Your task to perform on an android device: Play the last video I watched on Youtube Image 0: 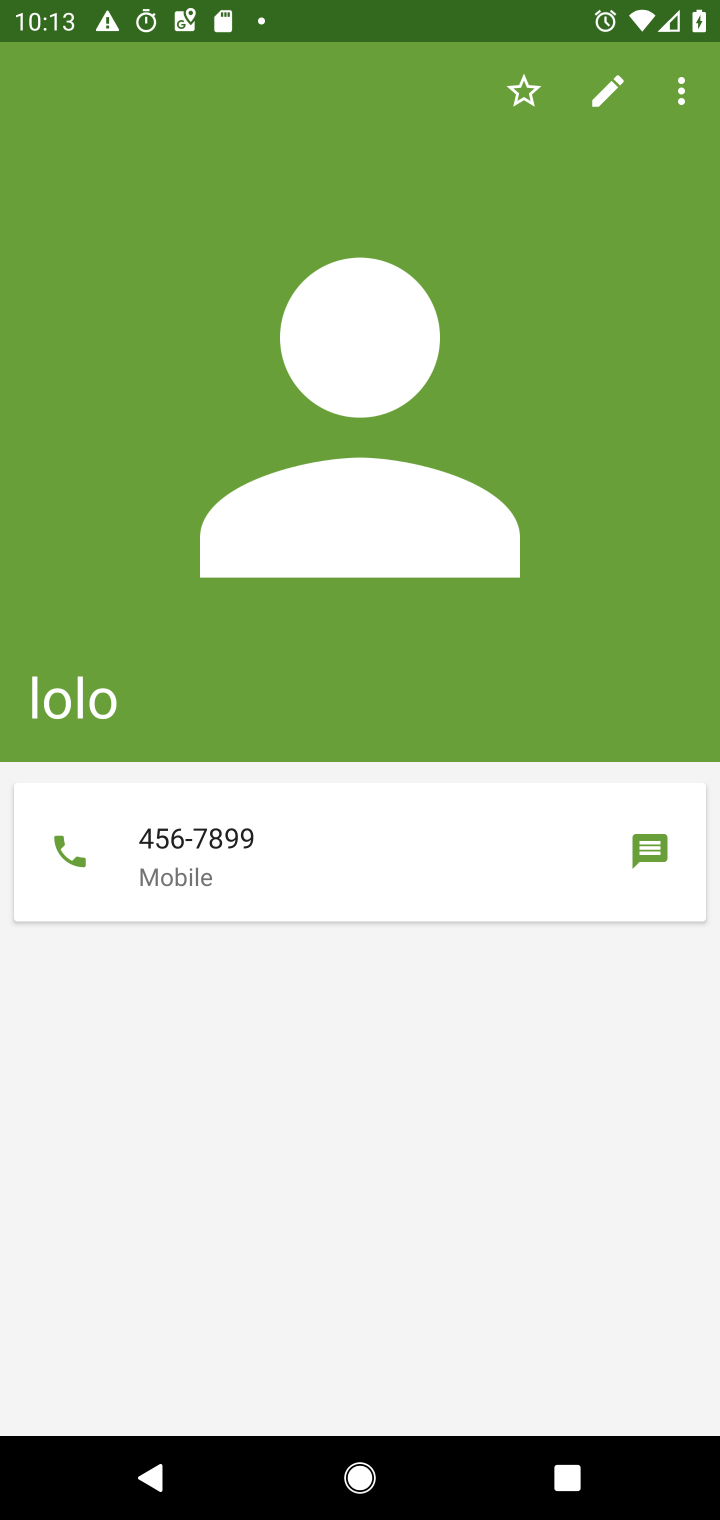
Step 0: press home button
Your task to perform on an android device: Play the last video I watched on Youtube Image 1: 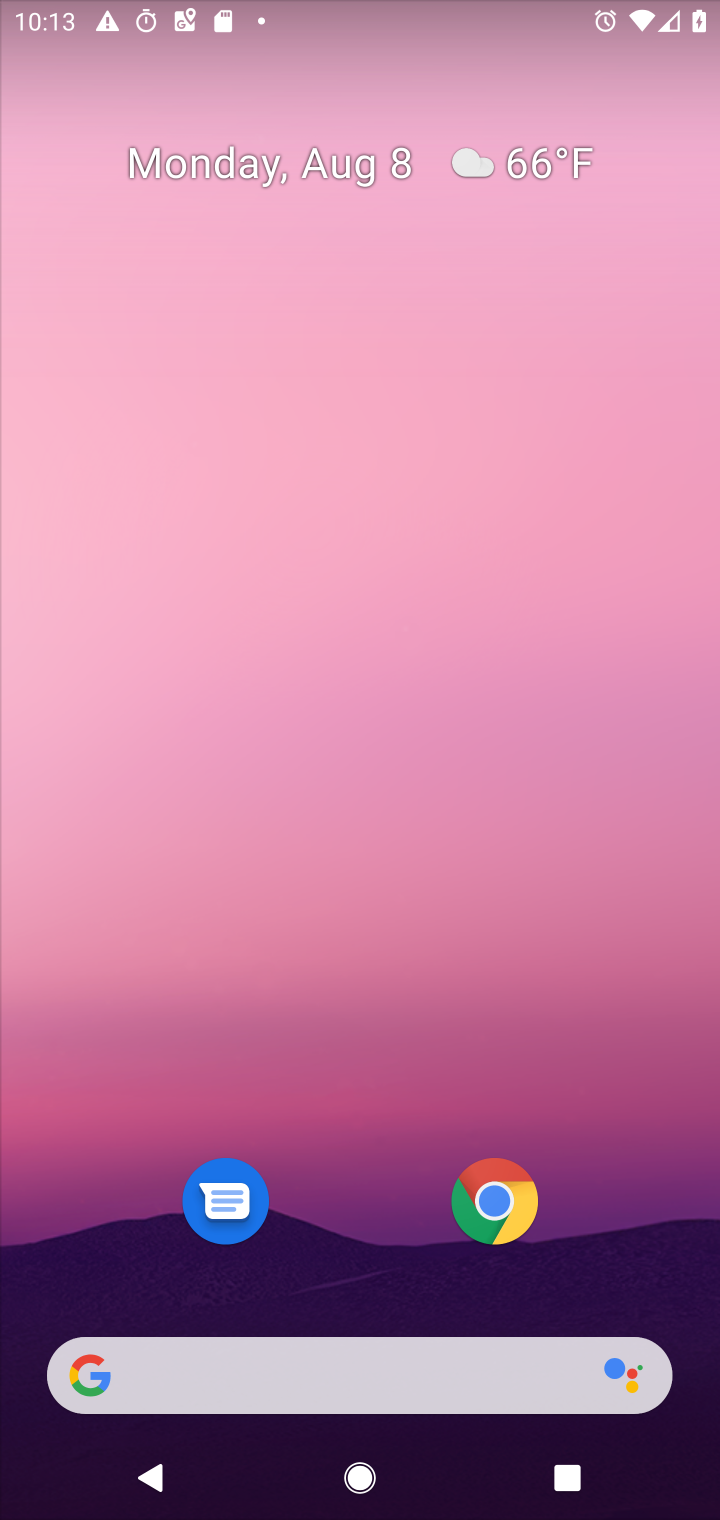
Step 1: drag from (392, 1261) to (379, 277)
Your task to perform on an android device: Play the last video I watched on Youtube Image 2: 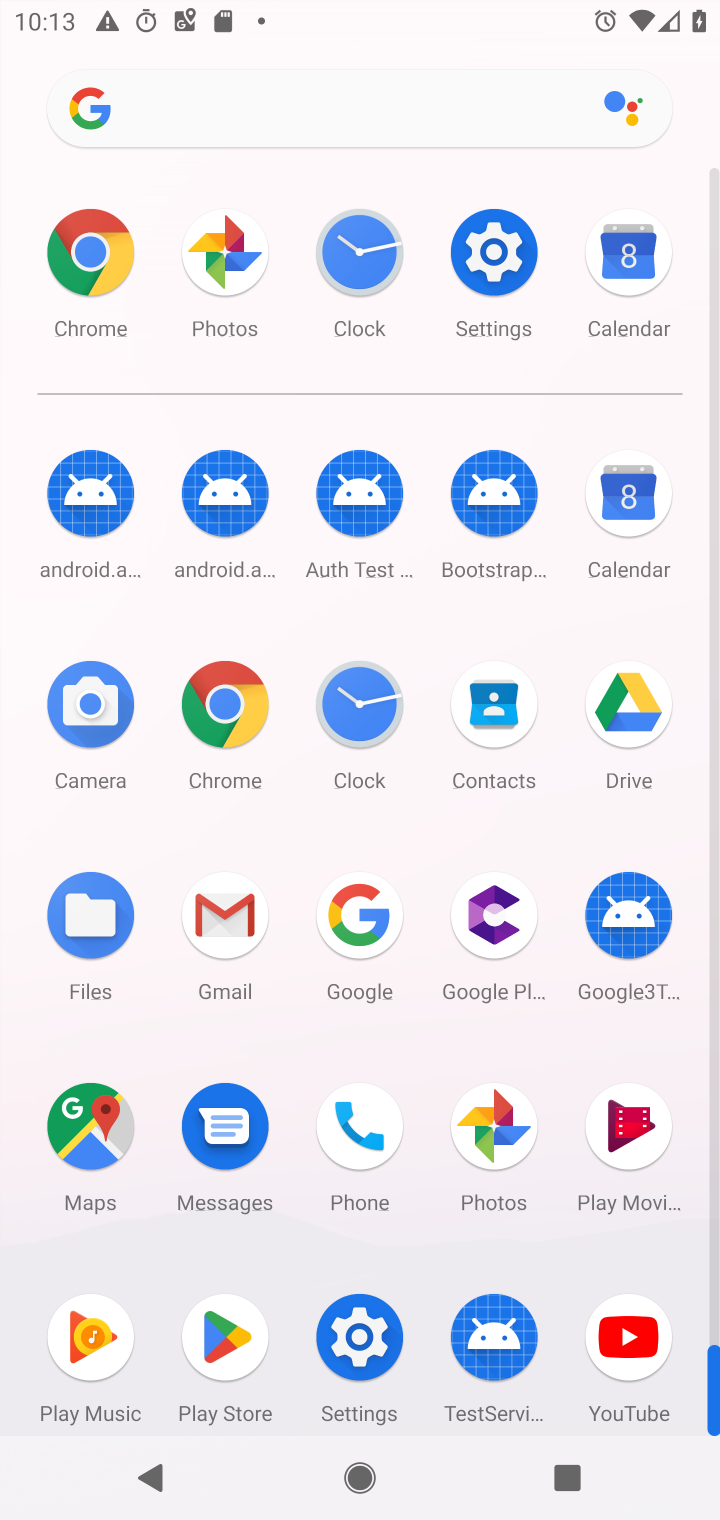
Step 2: click (623, 1343)
Your task to perform on an android device: Play the last video I watched on Youtube Image 3: 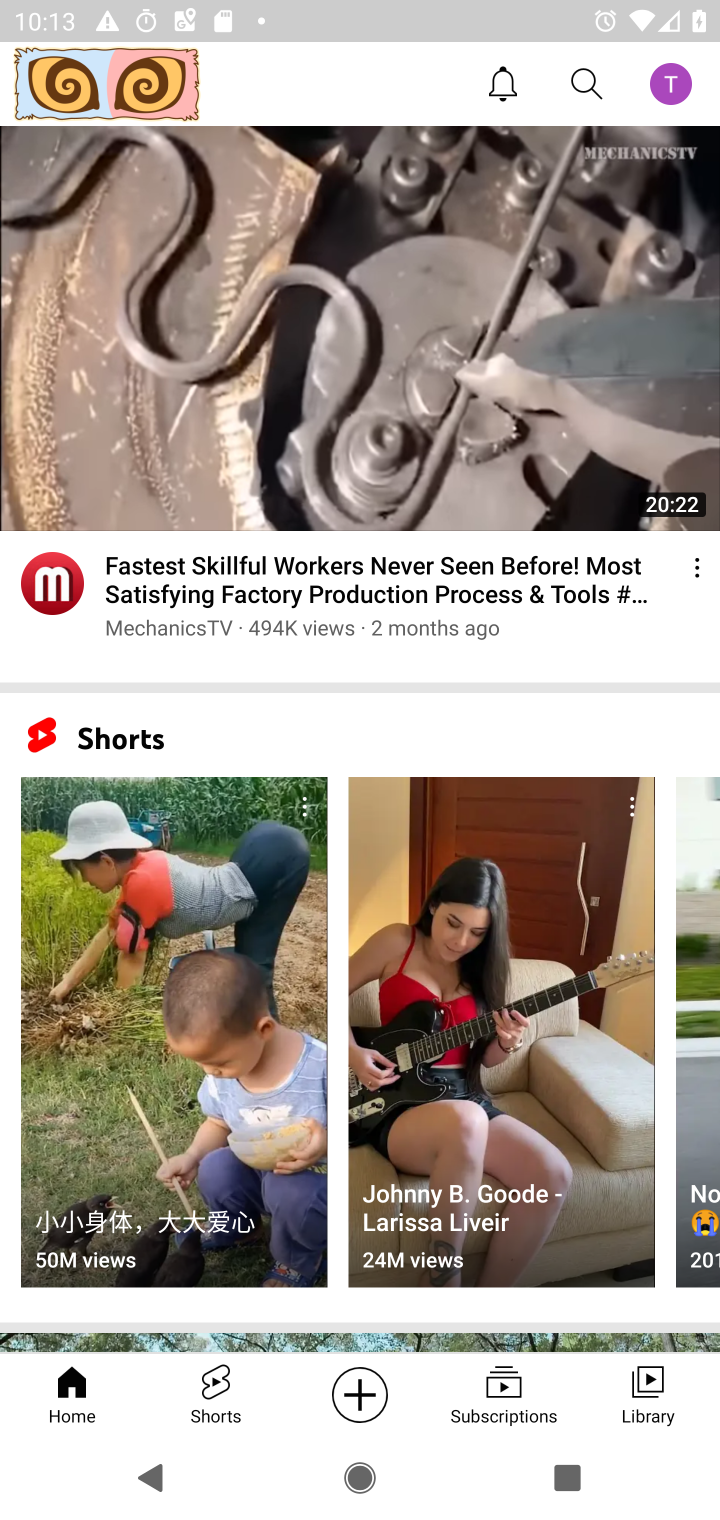
Step 3: click (657, 1382)
Your task to perform on an android device: Play the last video I watched on Youtube Image 4: 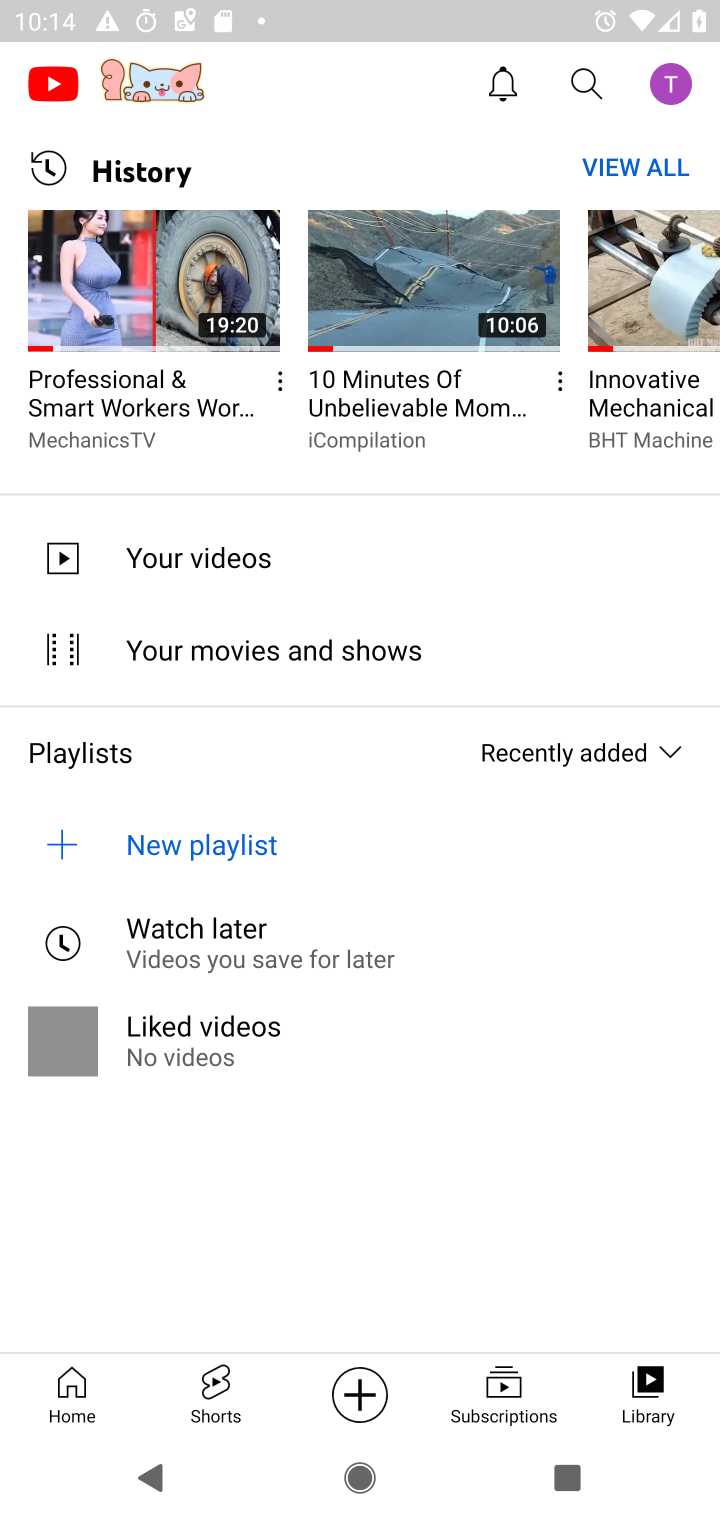
Step 4: click (131, 254)
Your task to perform on an android device: Play the last video I watched on Youtube Image 5: 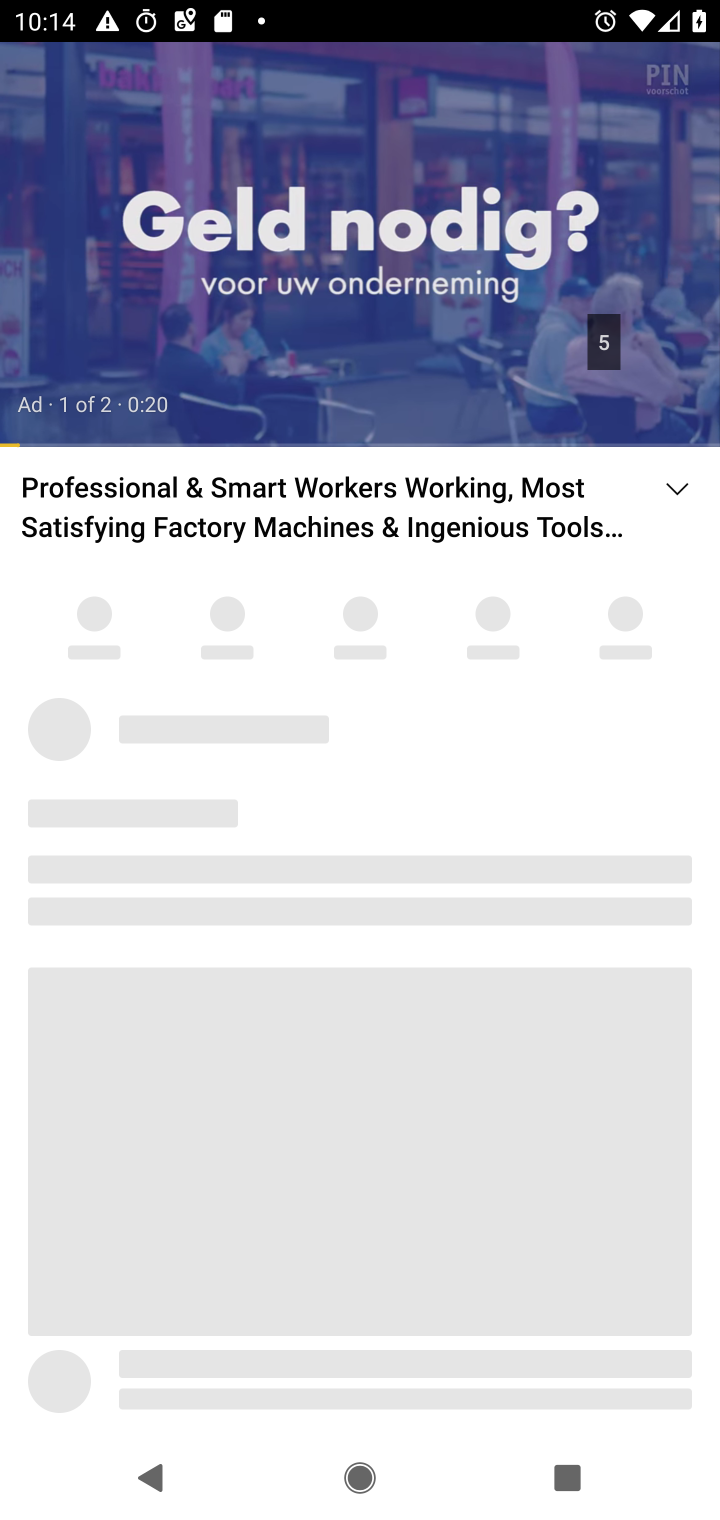
Step 5: task complete